Your task to perform on an android device: turn off notifications in google photos Image 0: 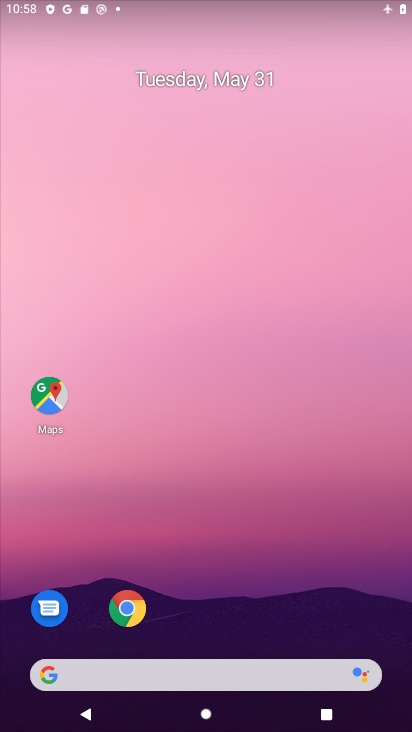
Step 0: drag from (333, 579) to (318, 31)
Your task to perform on an android device: turn off notifications in google photos Image 1: 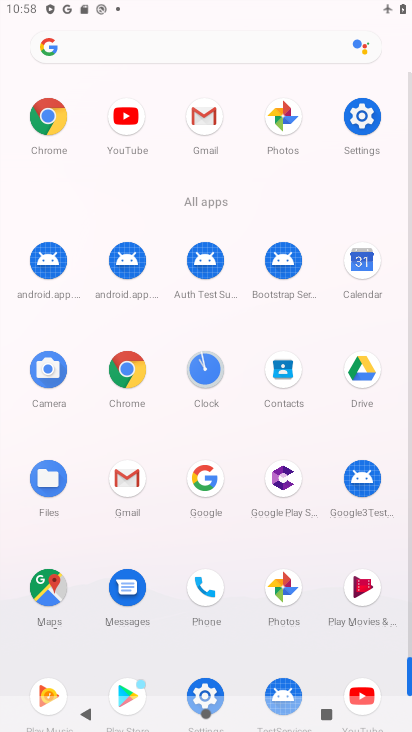
Step 1: click (282, 585)
Your task to perform on an android device: turn off notifications in google photos Image 2: 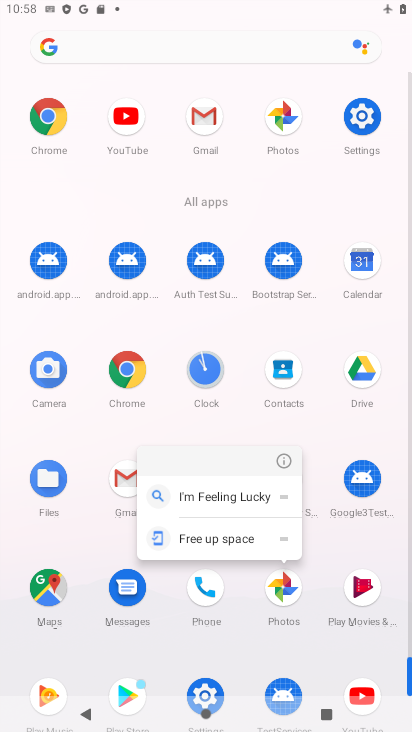
Step 2: click (269, 458)
Your task to perform on an android device: turn off notifications in google photos Image 3: 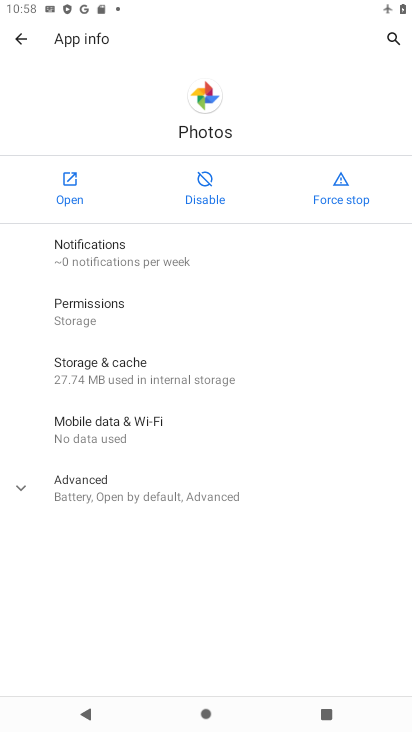
Step 3: click (192, 232)
Your task to perform on an android device: turn off notifications in google photos Image 4: 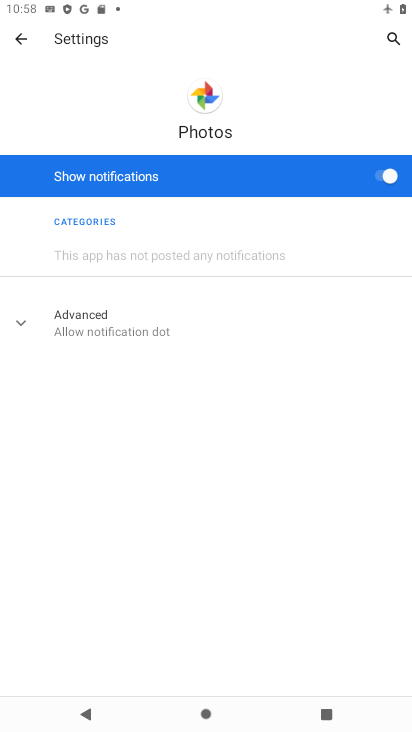
Step 4: click (282, 183)
Your task to perform on an android device: turn off notifications in google photos Image 5: 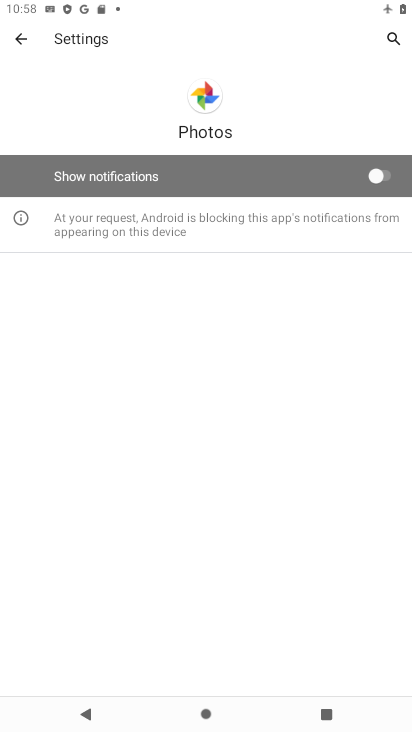
Step 5: task complete